Your task to perform on an android device: What is the recent news? Image 0: 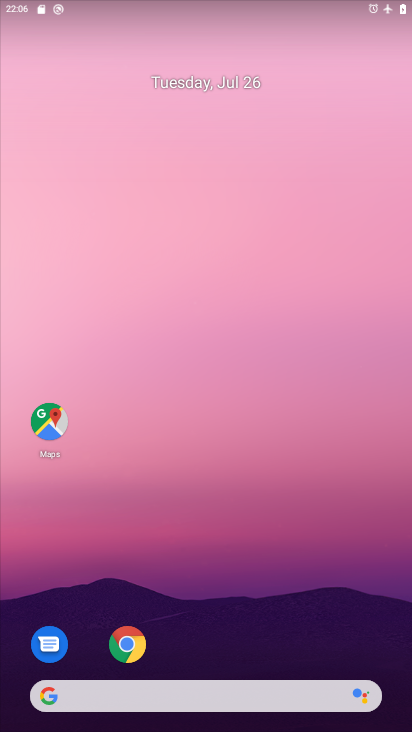
Step 0: drag from (207, 670) to (241, 213)
Your task to perform on an android device: What is the recent news? Image 1: 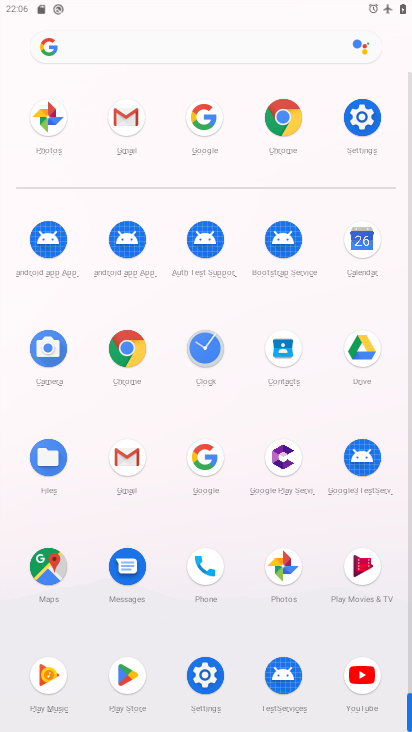
Step 1: click (294, 112)
Your task to perform on an android device: What is the recent news? Image 2: 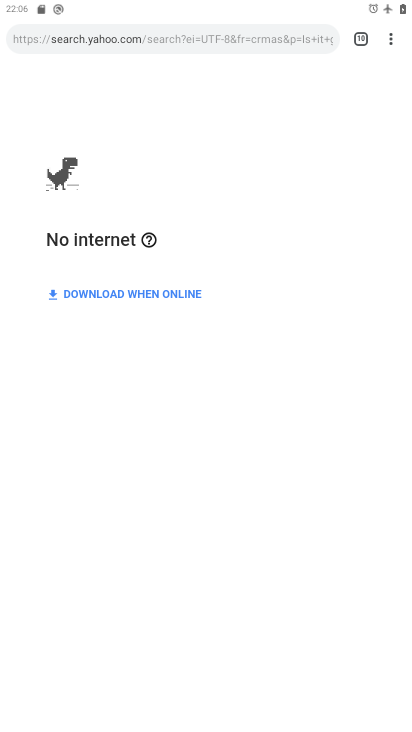
Step 2: click (394, 42)
Your task to perform on an android device: What is the recent news? Image 3: 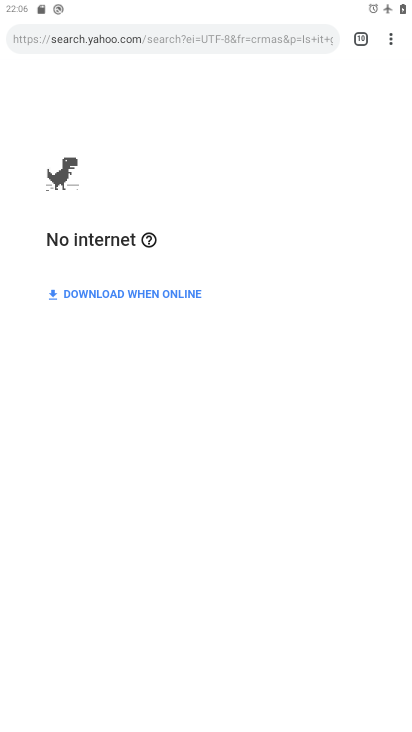
Step 3: click (400, 26)
Your task to perform on an android device: What is the recent news? Image 4: 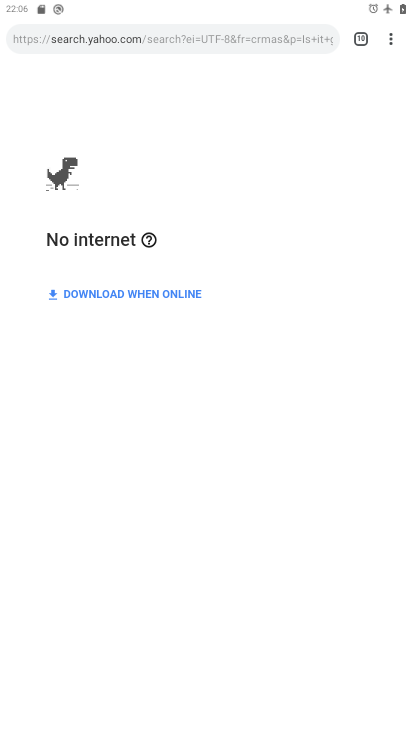
Step 4: click (392, 30)
Your task to perform on an android device: What is the recent news? Image 5: 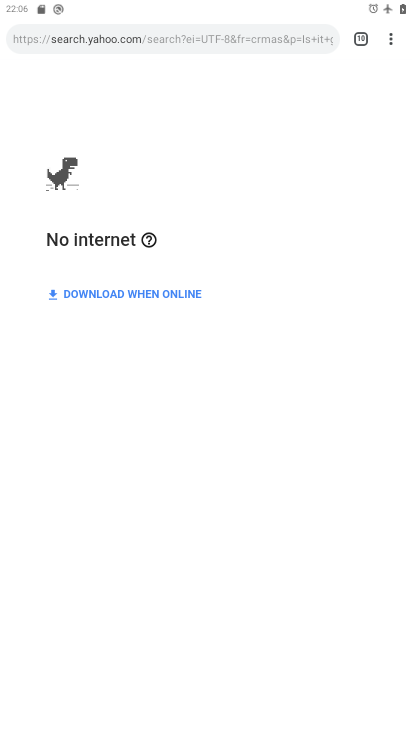
Step 5: click (391, 34)
Your task to perform on an android device: What is the recent news? Image 6: 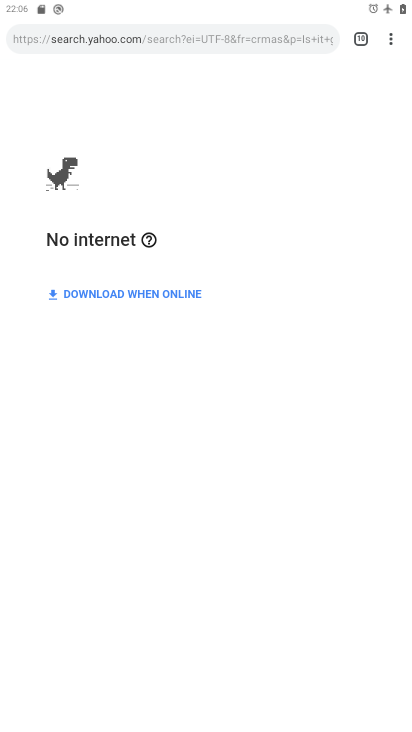
Step 6: click (391, 36)
Your task to perform on an android device: What is the recent news? Image 7: 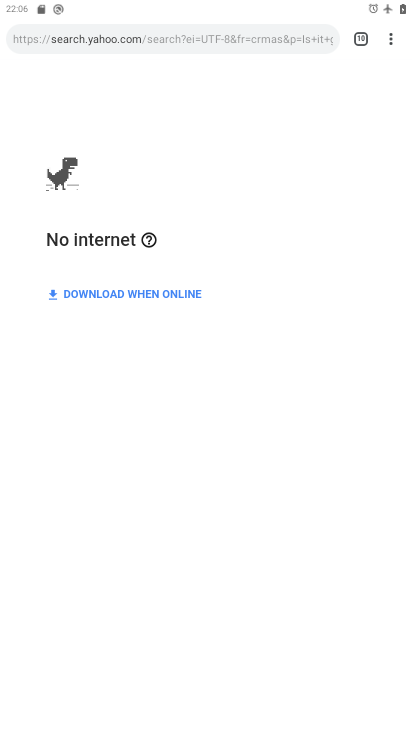
Step 7: click (391, 36)
Your task to perform on an android device: What is the recent news? Image 8: 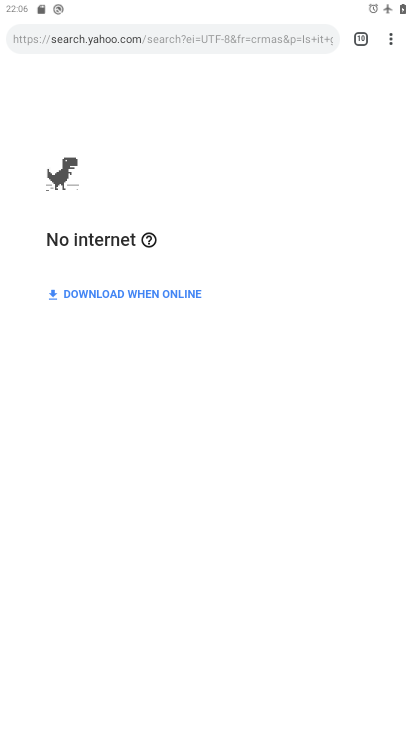
Step 8: click (391, 44)
Your task to perform on an android device: What is the recent news? Image 9: 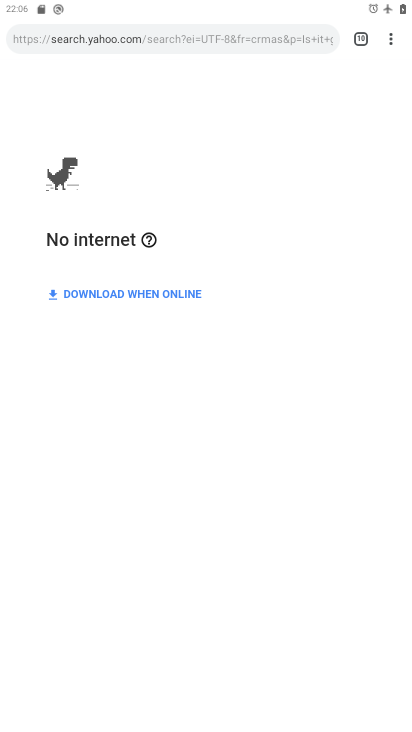
Step 9: click (391, 38)
Your task to perform on an android device: What is the recent news? Image 10: 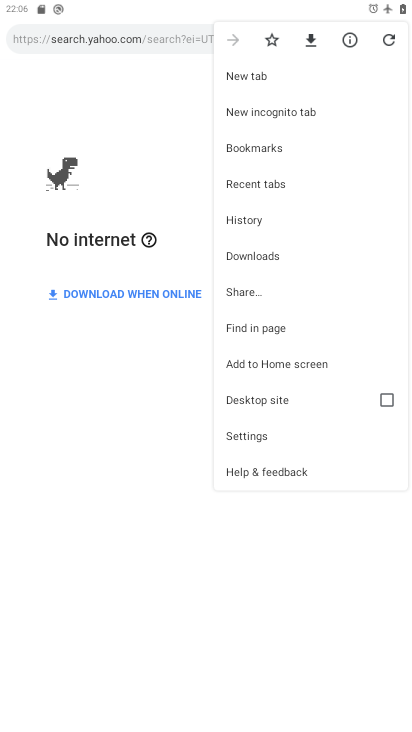
Step 10: click (274, 83)
Your task to perform on an android device: What is the recent news? Image 11: 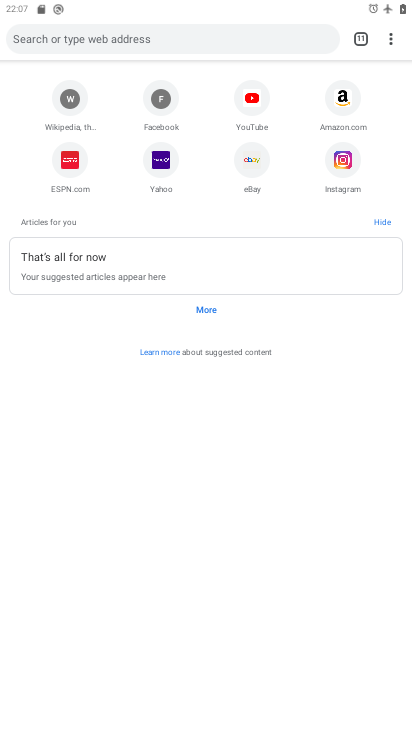
Step 11: click (186, 34)
Your task to perform on an android device: What is the recent news? Image 12: 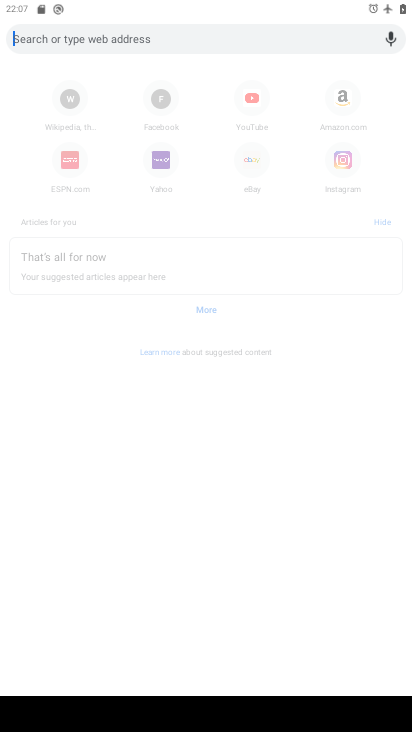
Step 12: type "What is the recent news? "
Your task to perform on an android device: What is the recent news? Image 13: 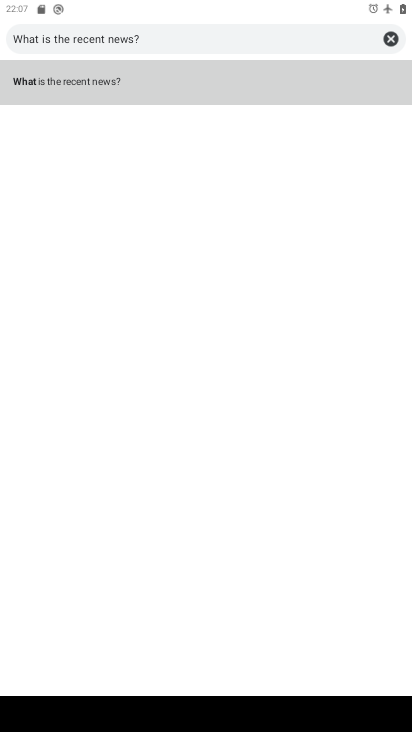
Step 13: click (192, 88)
Your task to perform on an android device: What is the recent news? Image 14: 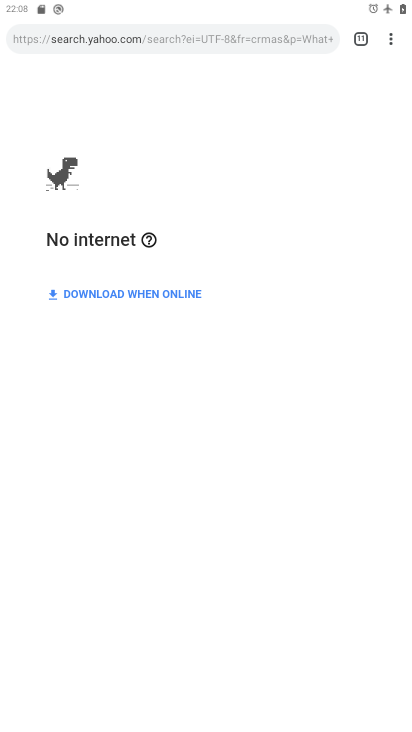
Step 14: task complete